Your task to perform on an android device: turn off priority inbox in the gmail app Image 0: 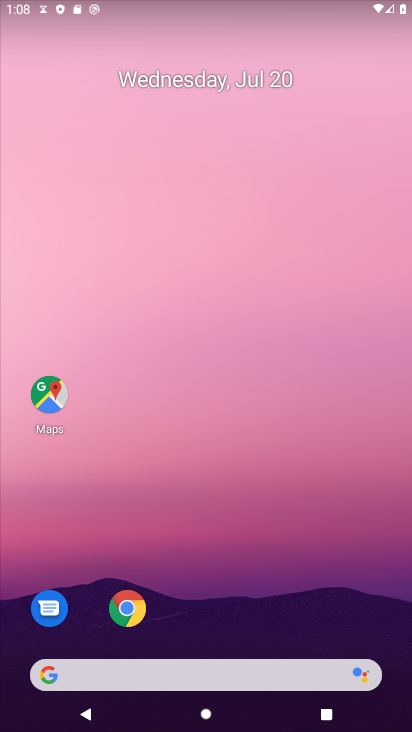
Step 0: drag from (181, 679) to (292, 46)
Your task to perform on an android device: turn off priority inbox in the gmail app Image 1: 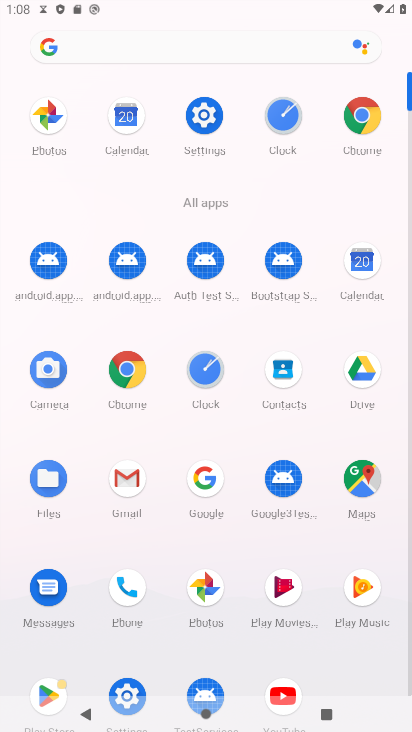
Step 1: click (126, 479)
Your task to perform on an android device: turn off priority inbox in the gmail app Image 2: 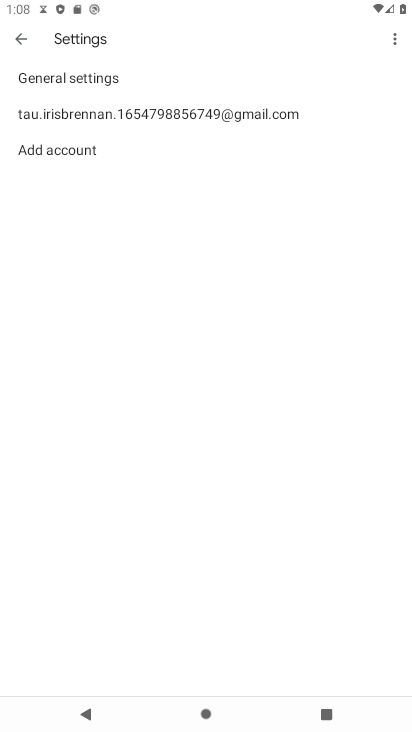
Step 2: click (218, 111)
Your task to perform on an android device: turn off priority inbox in the gmail app Image 3: 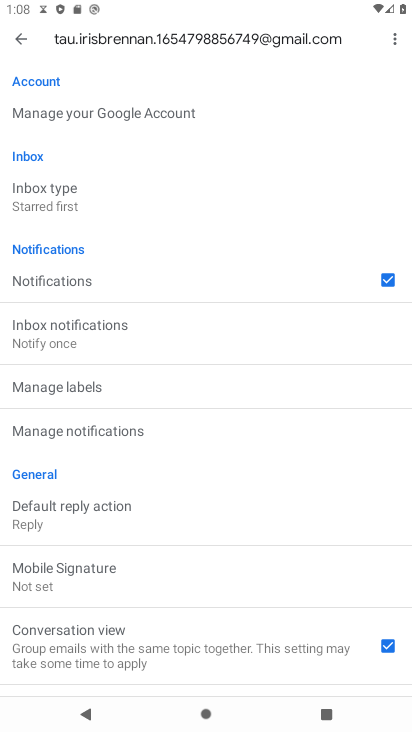
Step 3: click (69, 203)
Your task to perform on an android device: turn off priority inbox in the gmail app Image 4: 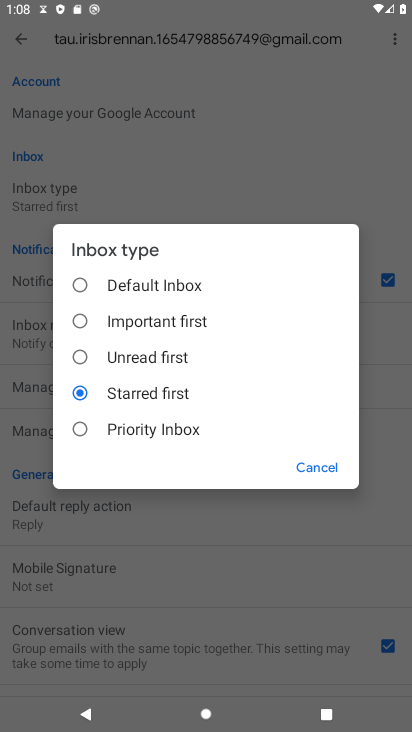
Step 4: click (79, 388)
Your task to perform on an android device: turn off priority inbox in the gmail app Image 5: 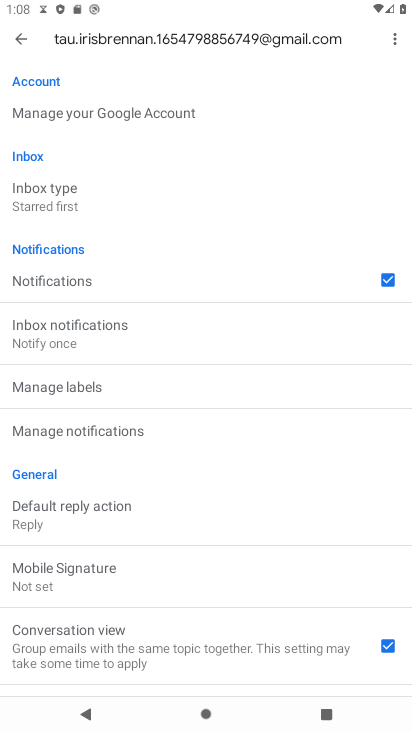
Step 5: task complete